Your task to perform on an android device: Go to calendar. Show me events next week Image 0: 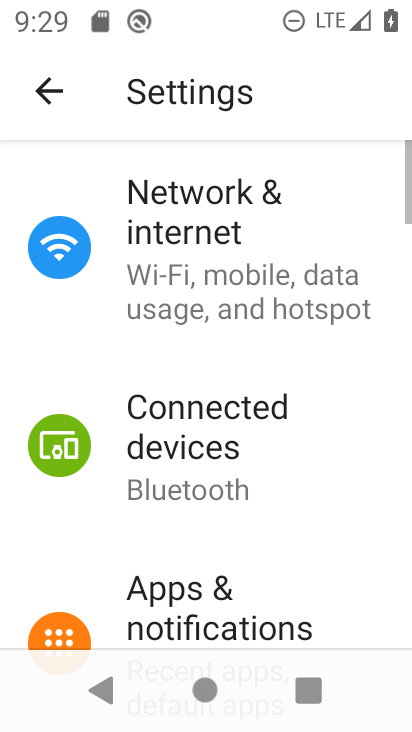
Step 0: press home button
Your task to perform on an android device: Go to calendar. Show me events next week Image 1: 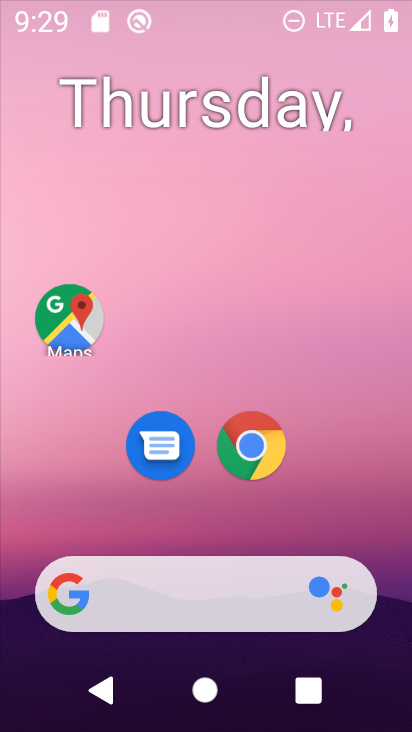
Step 1: drag from (372, 623) to (280, 29)
Your task to perform on an android device: Go to calendar. Show me events next week Image 2: 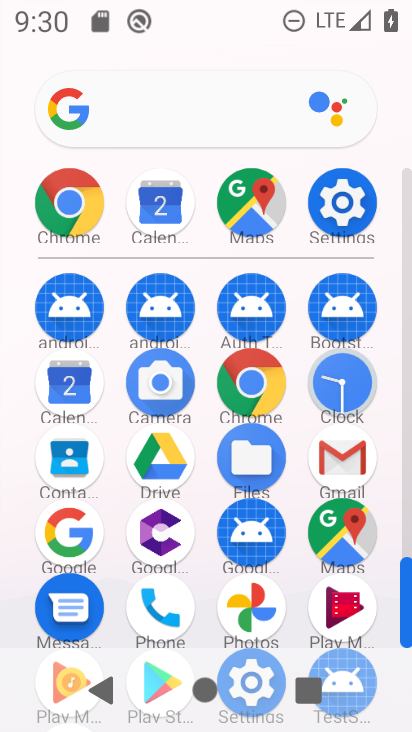
Step 2: click (60, 366)
Your task to perform on an android device: Go to calendar. Show me events next week Image 3: 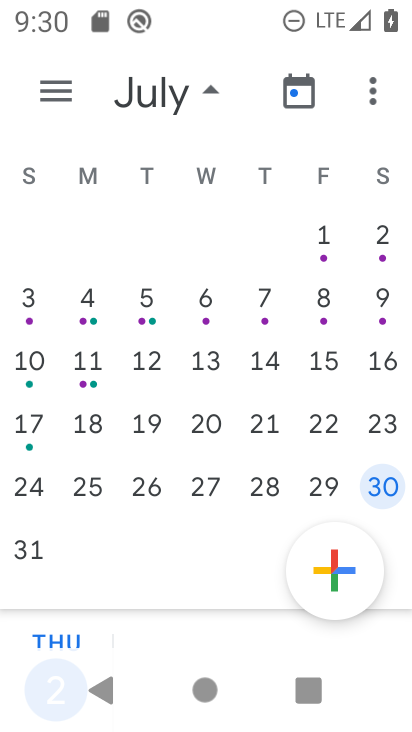
Step 3: task complete